Your task to perform on an android device: Toggle the flashlight Image 0: 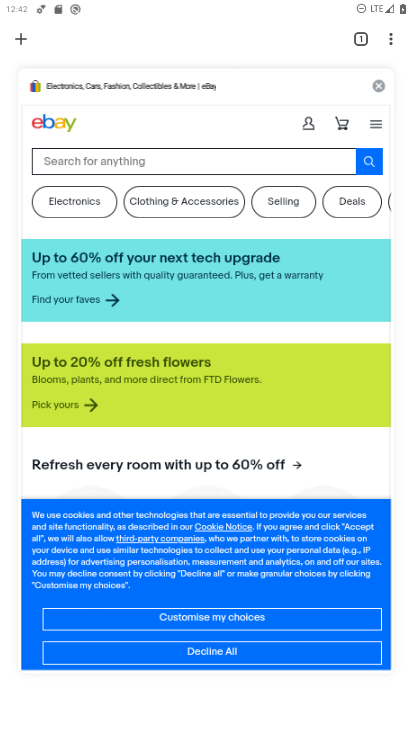
Step 0: press home button
Your task to perform on an android device: Toggle the flashlight Image 1: 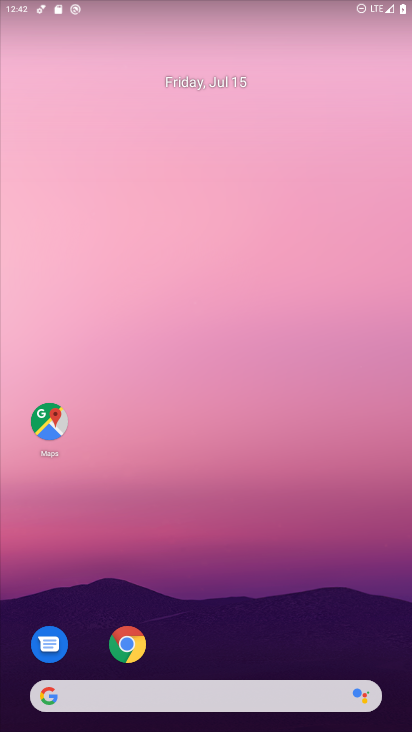
Step 1: click (54, 689)
Your task to perform on an android device: Toggle the flashlight Image 2: 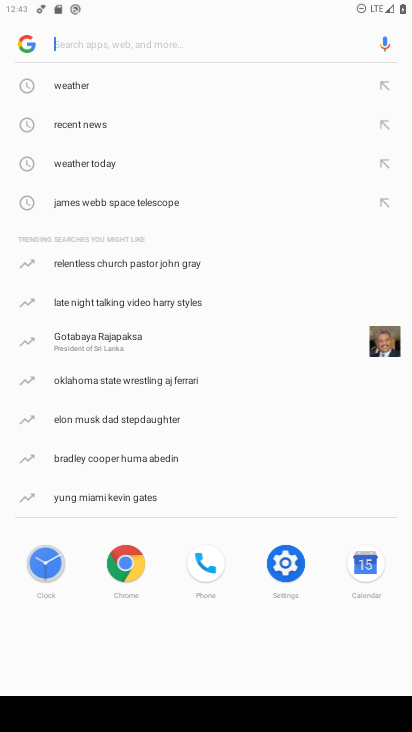
Step 2: click (25, 50)
Your task to perform on an android device: Toggle the flashlight Image 3: 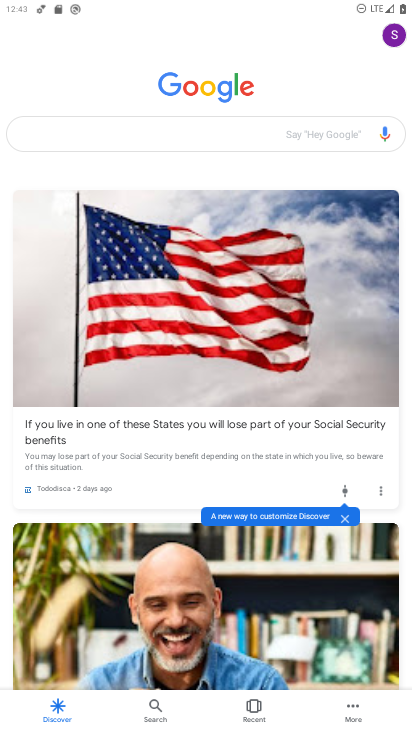
Step 3: task complete